Your task to perform on an android device: Do I have any events today? Image 0: 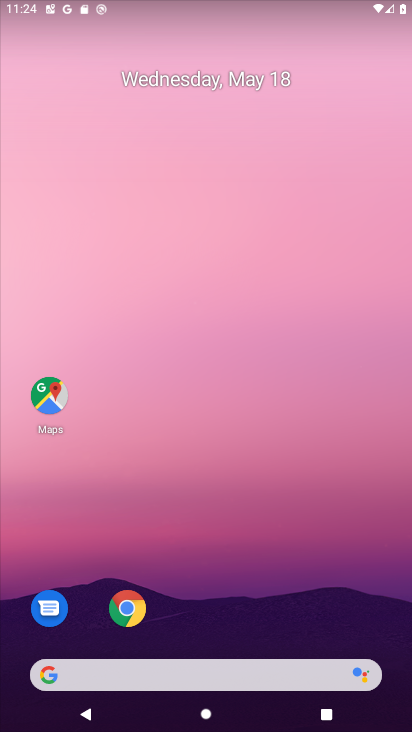
Step 0: drag from (177, 556) to (204, 192)
Your task to perform on an android device: Do I have any events today? Image 1: 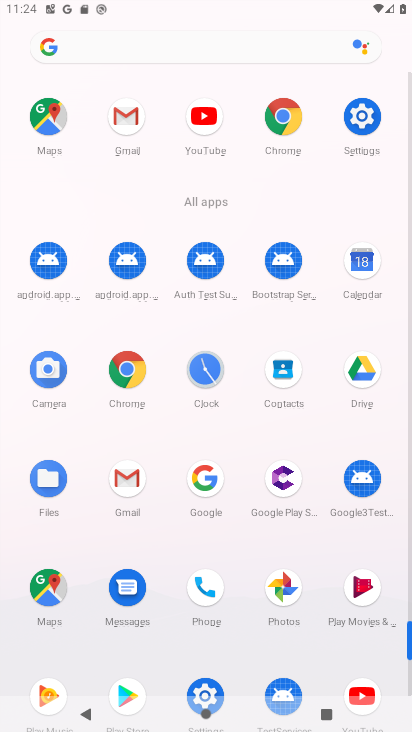
Step 1: click (378, 276)
Your task to perform on an android device: Do I have any events today? Image 2: 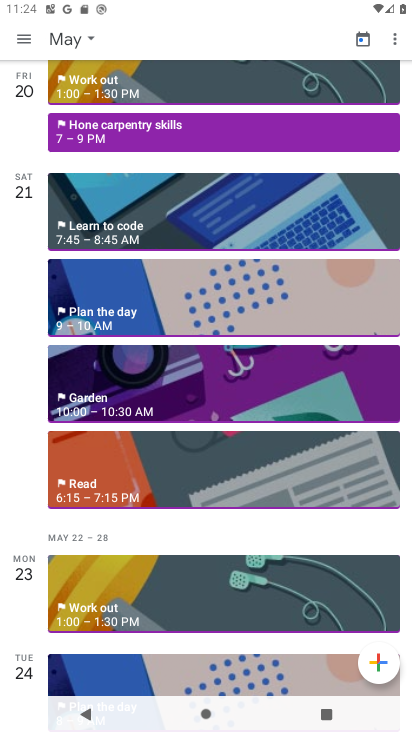
Step 2: task complete